Your task to perform on an android device: change notifications settings Image 0: 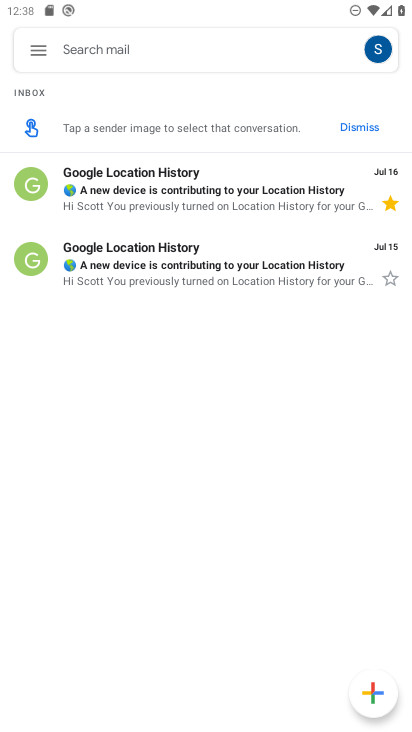
Step 0: press home button
Your task to perform on an android device: change notifications settings Image 1: 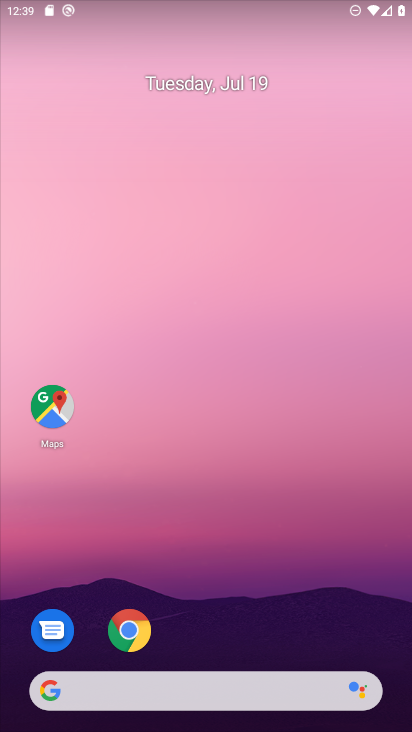
Step 1: drag from (170, 695) to (248, 199)
Your task to perform on an android device: change notifications settings Image 2: 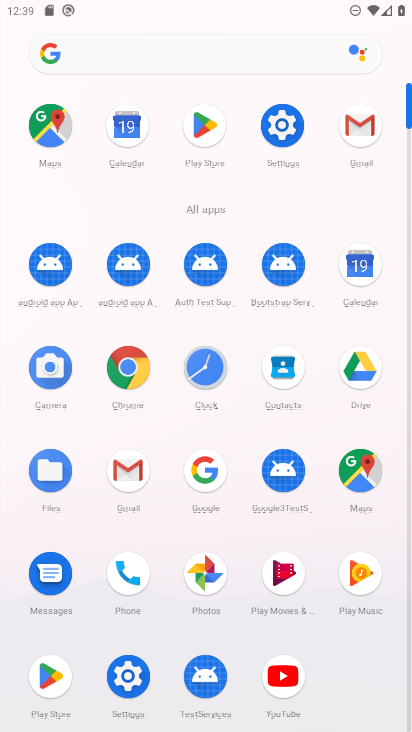
Step 2: click (282, 132)
Your task to perform on an android device: change notifications settings Image 3: 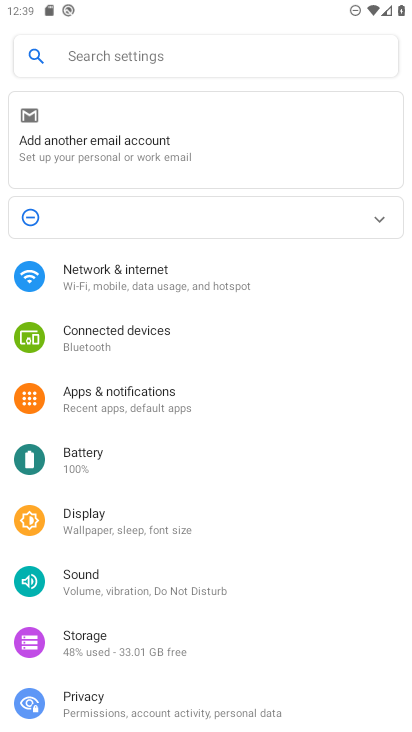
Step 3: click (143, 393)
Your task to perform on an android device: change notifications settings Image 4: 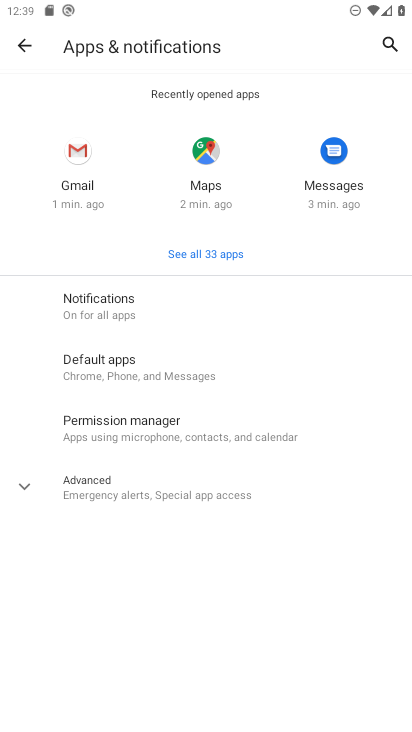
Step 4: click (103, 311)
Your task to perform on an android device: change notifications settings Image 5: 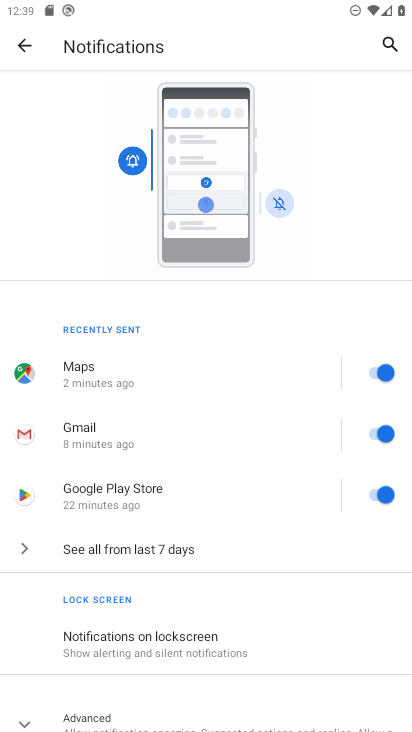
Step 5: click (373, 494)
Your task to perform on an android device: change notifications settings Image 6: 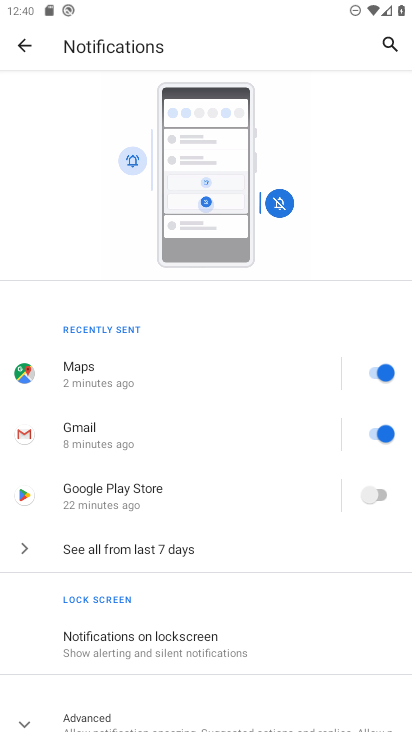
Step 6: task complete